Your task to perform on an android device: Go to notification settings Image 0: 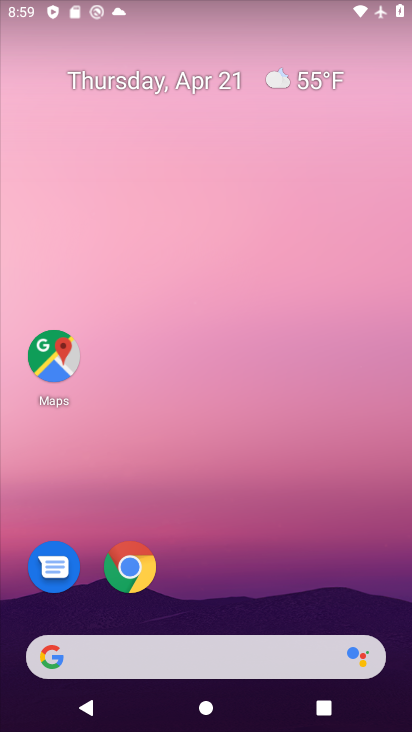
Step 0: drag from (370, 605) to (328, 151)
Your task to perform on an android device: Go to notification settings Image 1: 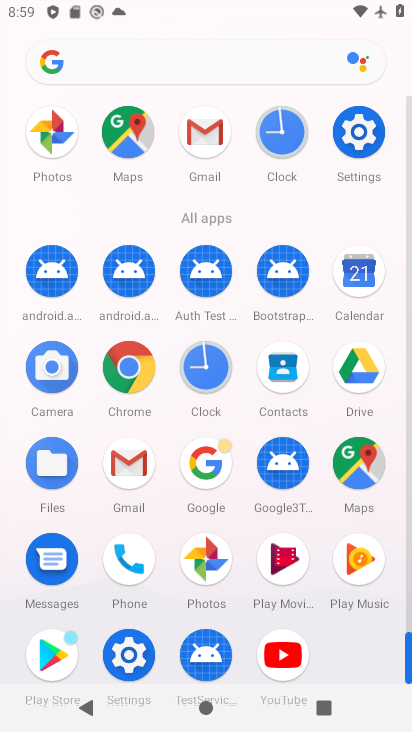
Step 1: click (135, 655)
Your task to perform on an android device: Go to notification settings Image 2: 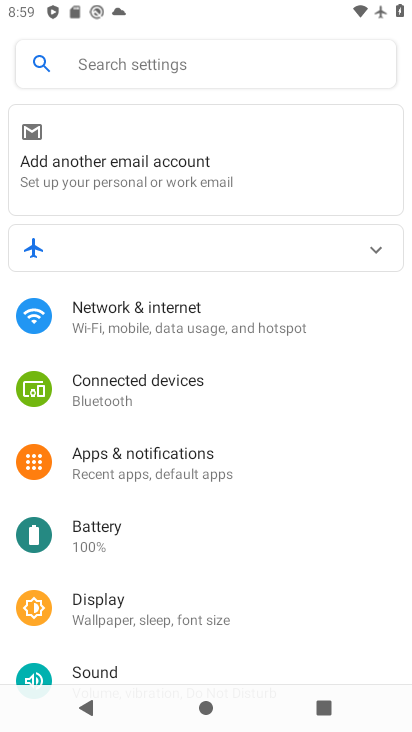
Step 2: click (144, 457)
Your task to perform on an android device: Go to notification settings Image 3: 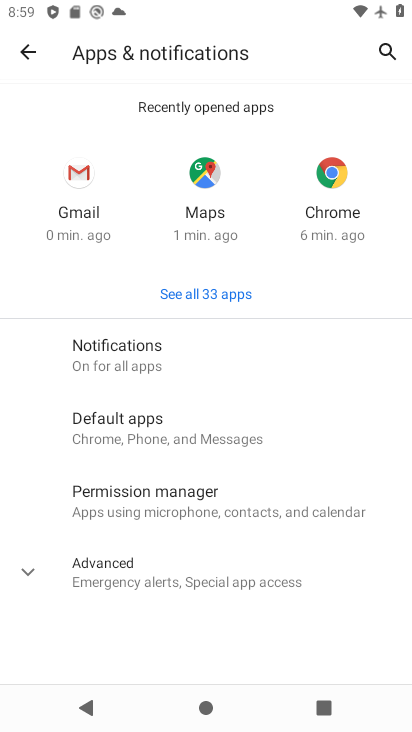
Step 3: click (101, 357)
Your task to perform on an android device: Go to notification settings Image 4: 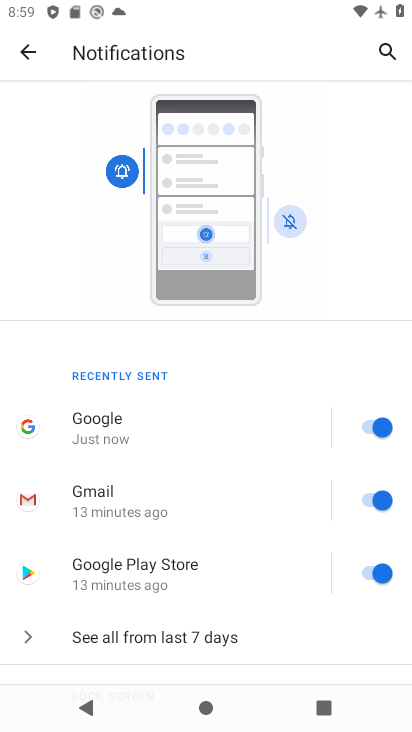
Step 4: drag from (327, 627) to (359, 271)
Your task to perform on an android device: Go to notification settings Image 5: 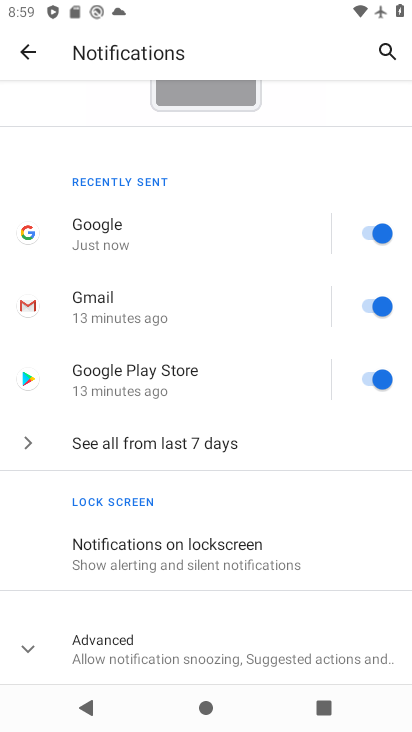
Step 5: click (36, 653)
Your task to perform on an android device: Go to notification settings Image 6: 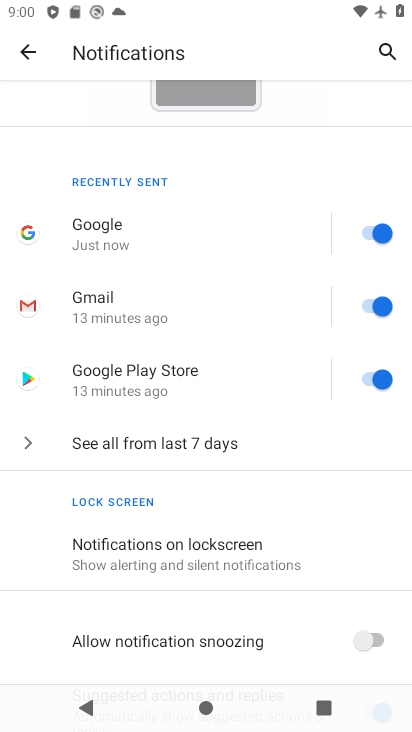
Step 6: task complete